Your task to perform on an android device: turn notification dots off Image 0: 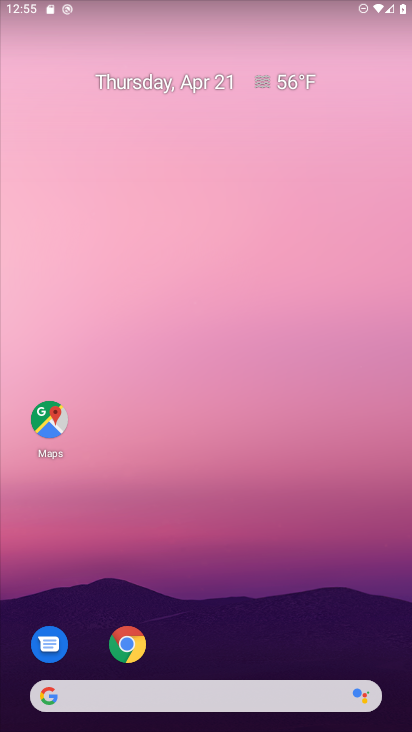
Step 0: drag from (185, 662) to (208, 129)
Your task to perform on an android device: turn notification dots off Image 1: 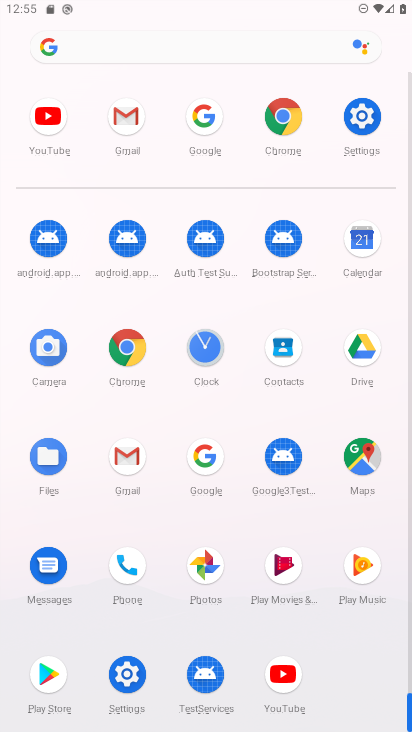
Step 1: click (355, 124)
Your task to perform on an android device: turn notification dots off Image 2: 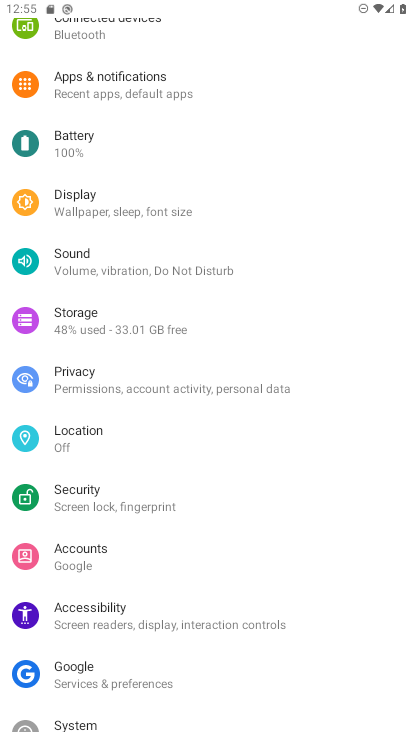
Step 2: drag from (94, 625) to (136, 258)
Your task to perform on an android device: turn notification dots off Image 3: 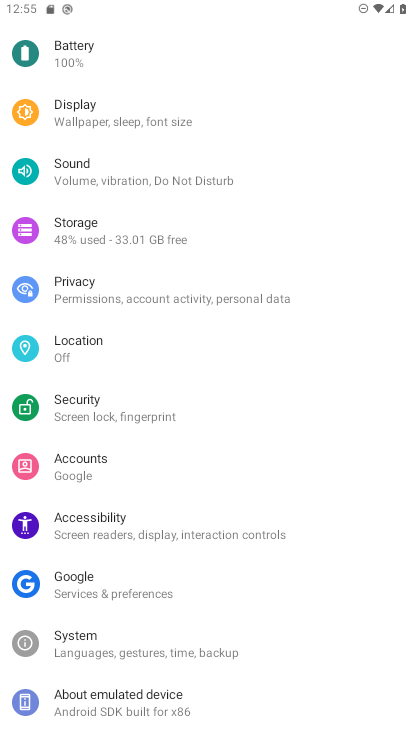
Step 3: drag from (130, 166) to (123, 476)
Your task to perform on an android device: turn notification dots off Image 4: 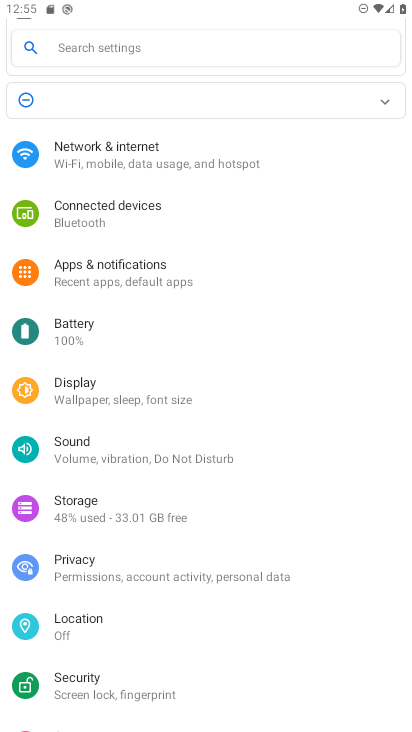
Step 4: click (115, 274)
Your task to perform on an android device: turn notification dots off Image 5: 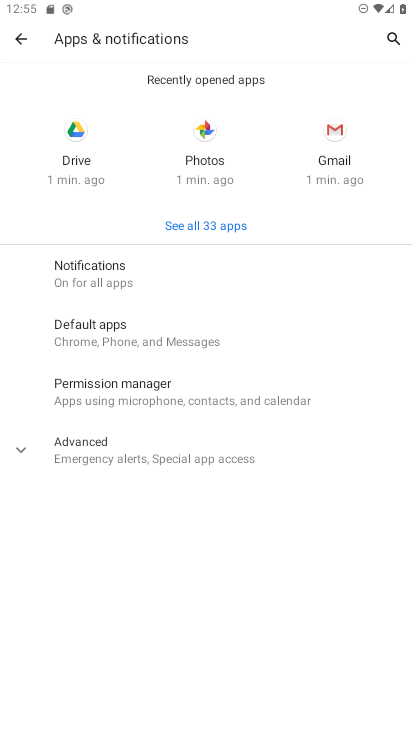
Step 5: click (115, 273)
Your task to perform on an android device: turn notification dots off Image 6: 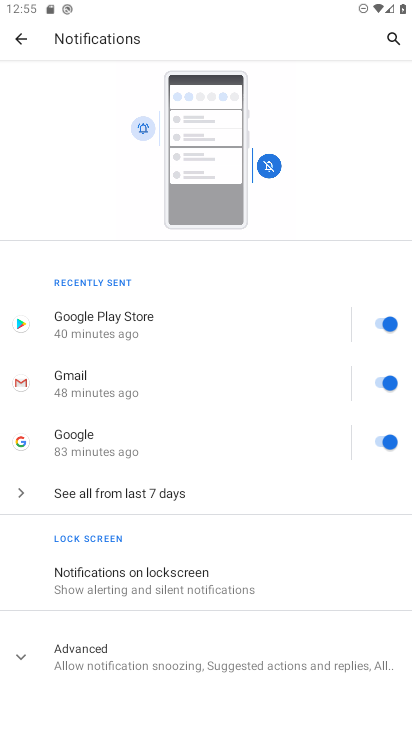
Step 6: click (32, 649)
Your task to perform on an android device: turn notification dots off Image 7: 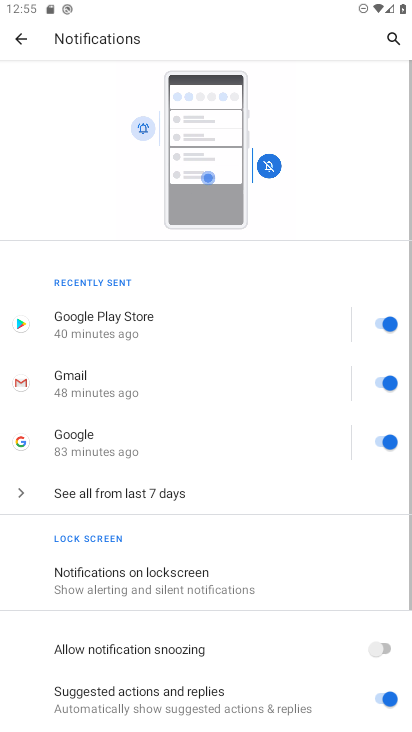
Step 7: drag from (89, 617) to (153, 334)
Your task to perform on an android device: turn notification dots off Image 8: 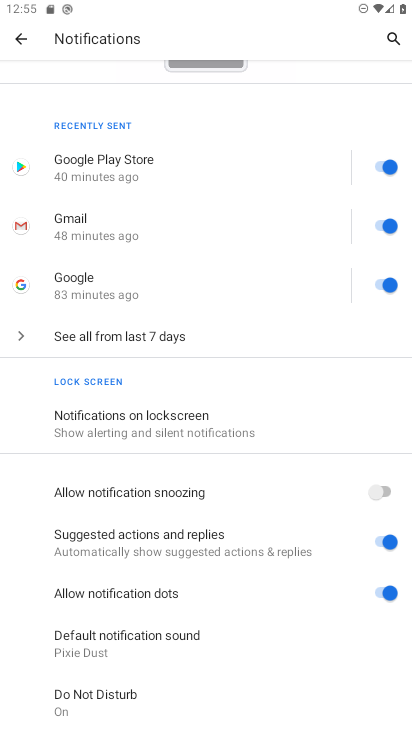
Step 8: click (379, 592)
Your task to perform on an android device: turn notification dots off Image 9: 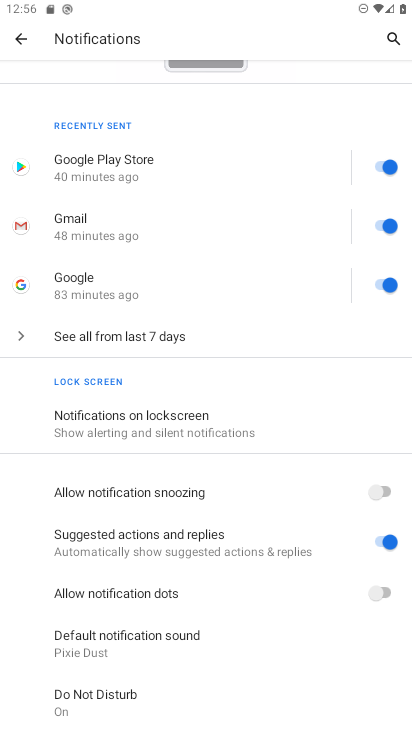
Step 9: task complete